Your task to perform on an android device: Open the Play Movies app and select the watchlist tab. Image 0: 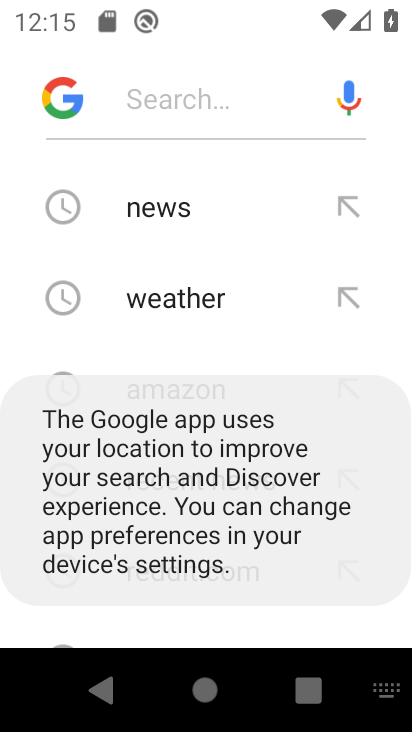
Step 0: press home button
Your task to perform on an android device: Open the Play Movies app and select the watchlist tab. Image 1: 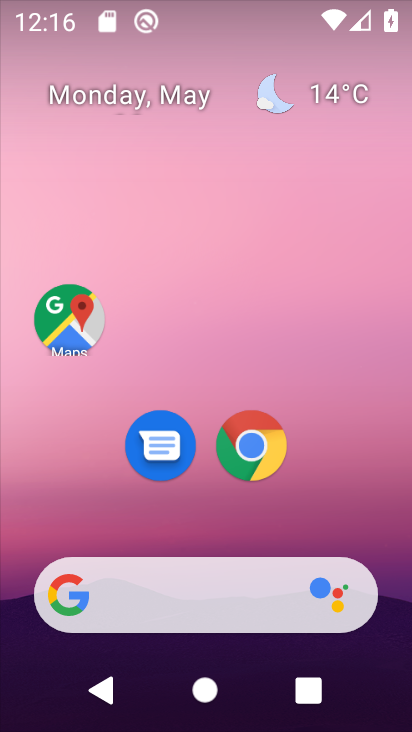
Step 1: drag from (396, 613) to (303, 82)
Your task to perform on an android device: Open the Play Movies app and select the watchlist tab. Image 2: 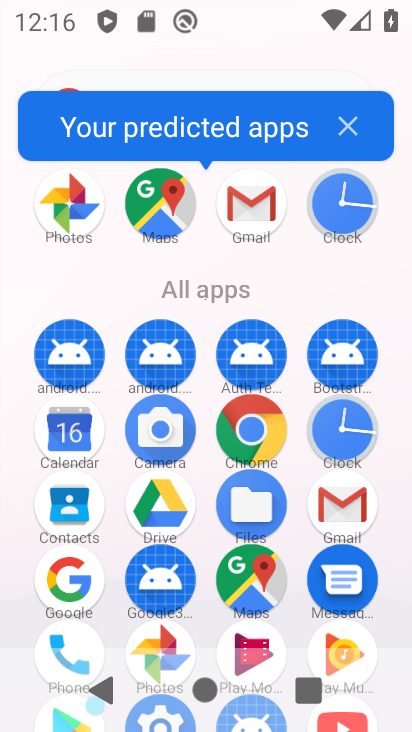
Step 2: drag from (295, 610) to (329, 372)
Your task to perform on an android device: Open the Play Movies app and select the watchlist tab. Image 3: 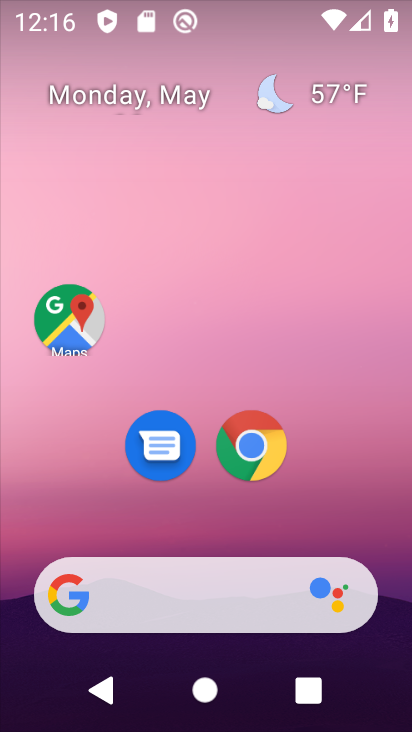
Step 3: drag from (404, 655) to (377, 97)
Your task to perform on an android device: Open the Play Movies app and select the watchlist tab. Image 4: 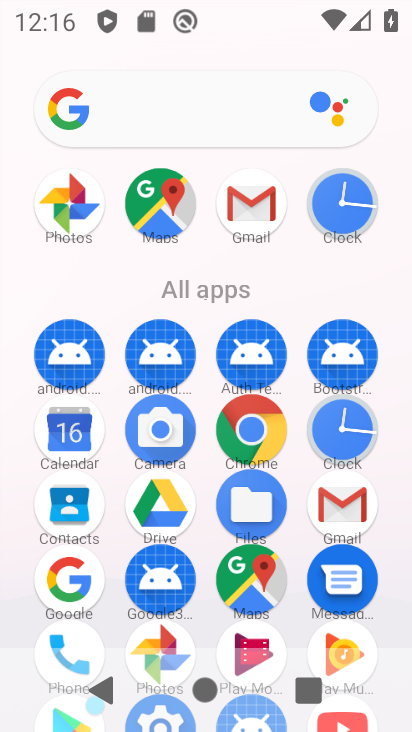
Step 4: drag from (297, 625) to (355, 135)
Your task to perform on an android device: Open the Play Movies app and select the watchlist tab. Image 5: 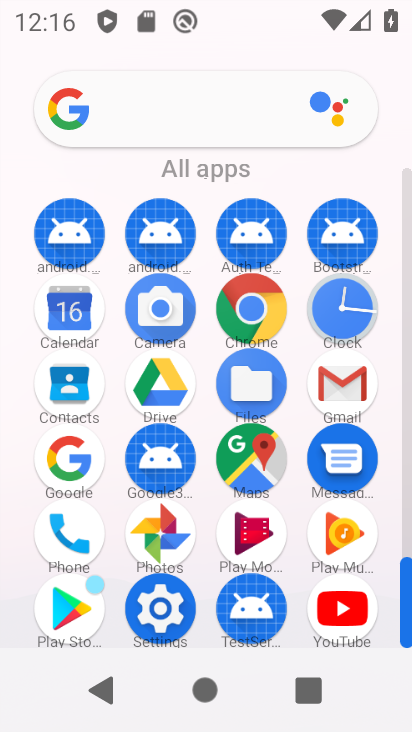
Step 5: click (246, 532)
Your task to perform on an android device: Open the Play Movies app and select the watchlist tab. Image 6: 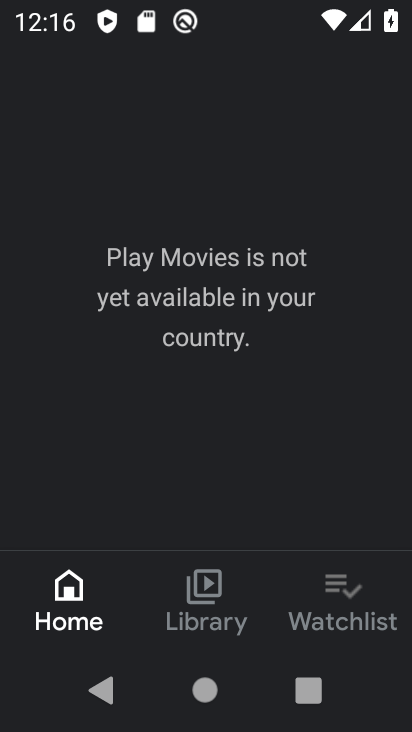
Step 6: click (330, 582)
Your task to perform on an android device: Open the Play Movies app and select the watchlist tab. Image 7: 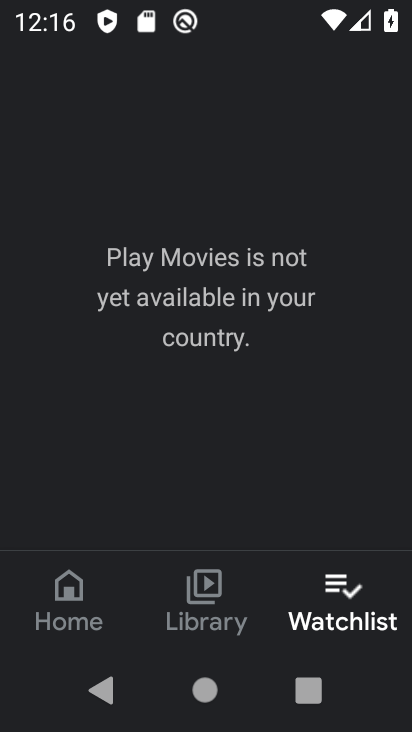
Step 7: task complete